Your task to perform on an android device: Go to privacy settings Image 0: 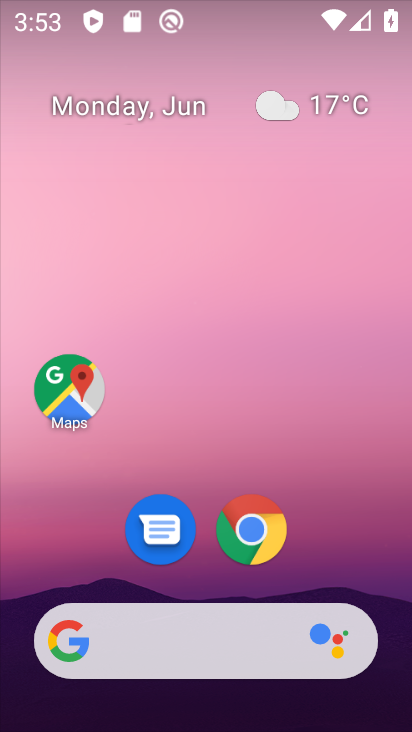
Step 0: drag from (311, 548) to (281, 39)
Your task to perform on an android device: Go to privacy settings Image 1: 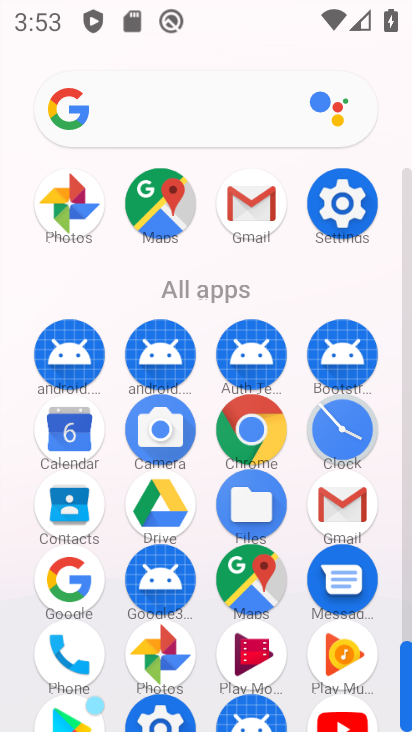
Step 1: click (343, 205)
Your task to perform on an android device: Go to privacy settings Image 2: 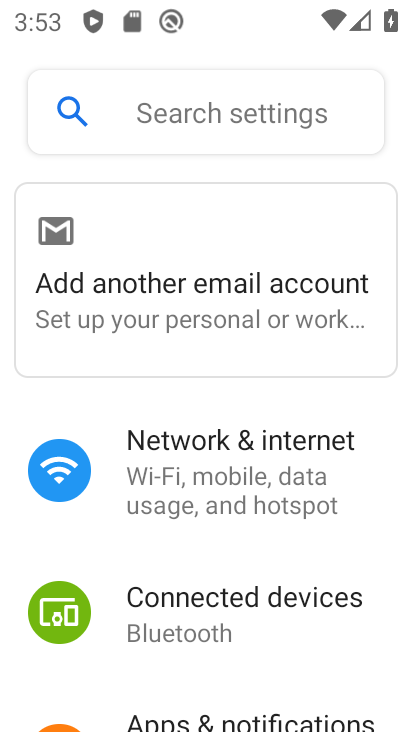
Step 2: drag from (269, 624) to (339, 50)
Your task to perform on an android device: Go to privacy settings Image 3: 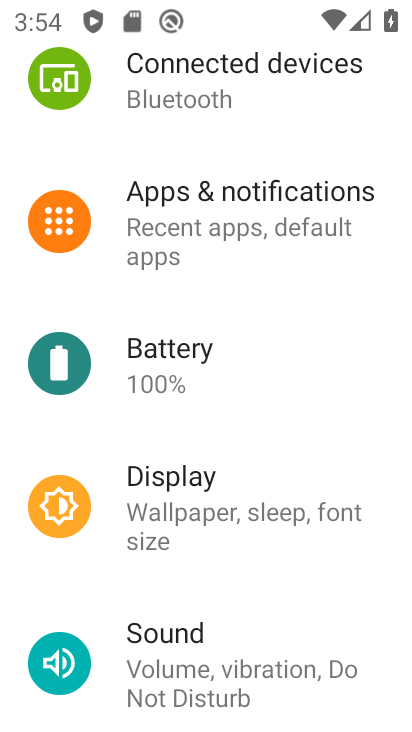
Step 3: drag from (223, 582) to (322, 147)
Your task to perform on an android device: Go to privacy settings Image 4: 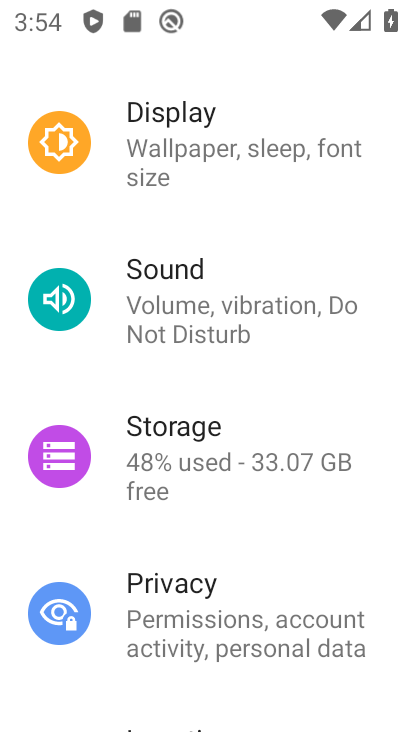
Step 4: click (206, 573)
Your task to perform on an android device: Go to privacy settings Image 5: 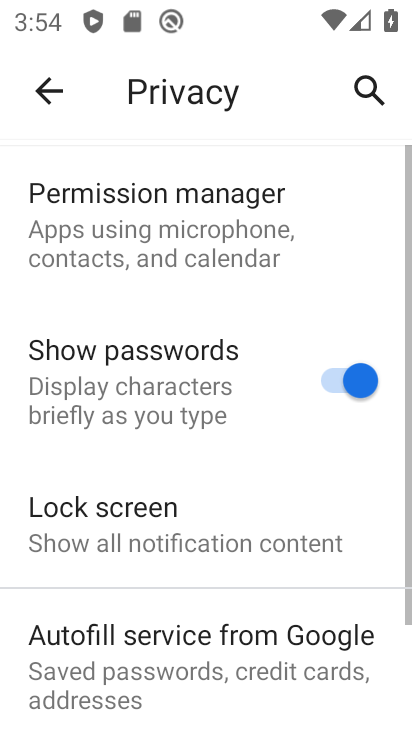
Step 5: task complete